Your task to perform on an android device: Show me popular games on the Play Store Image 0: 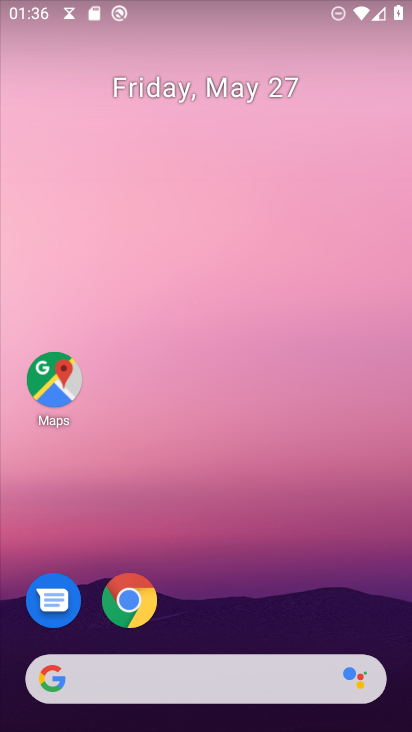
Step 0: drag from (149, 462) to (137, 180)
Your task to perform on an android device: Show me popular games on the Play Store Image 1: 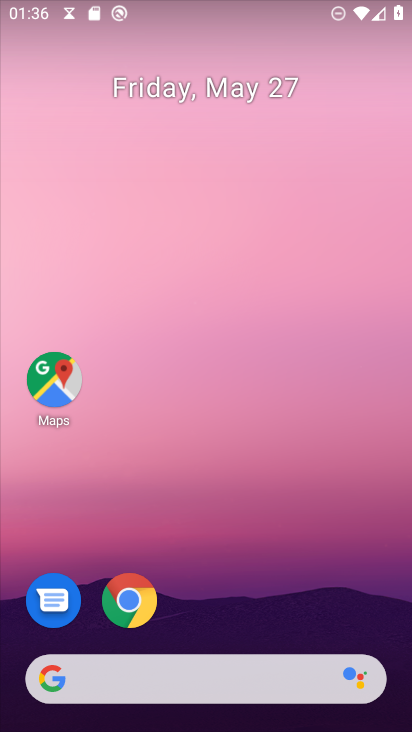
Step 1: drag from (185, 385) to (187, 56)
Your task to perform on an android device: Show me popular games on the Play Store Image 2: 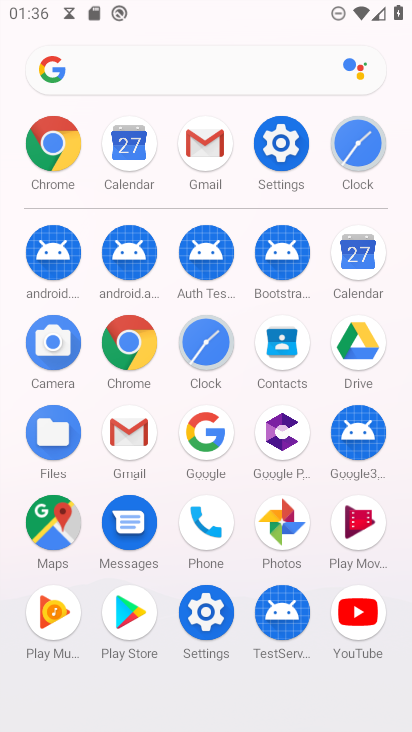
Step 2: click (144, 617)
Your task to perform on an android device: Show me popular games on the Play Store Image 3: 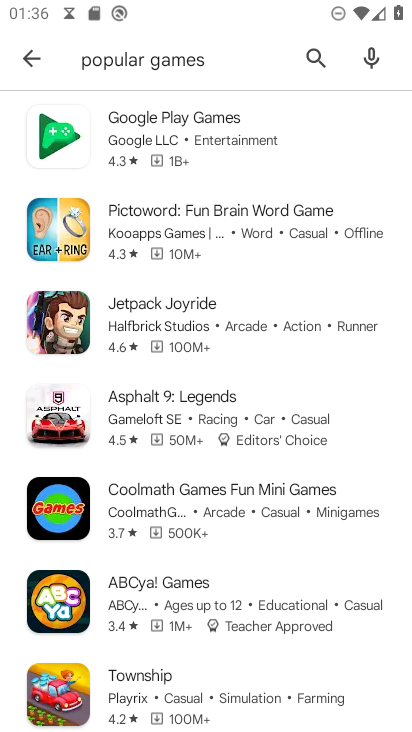
Step 3: task complete